Your task to perform on an android device: open app "Google Home" (install if not already installed) Image 0: 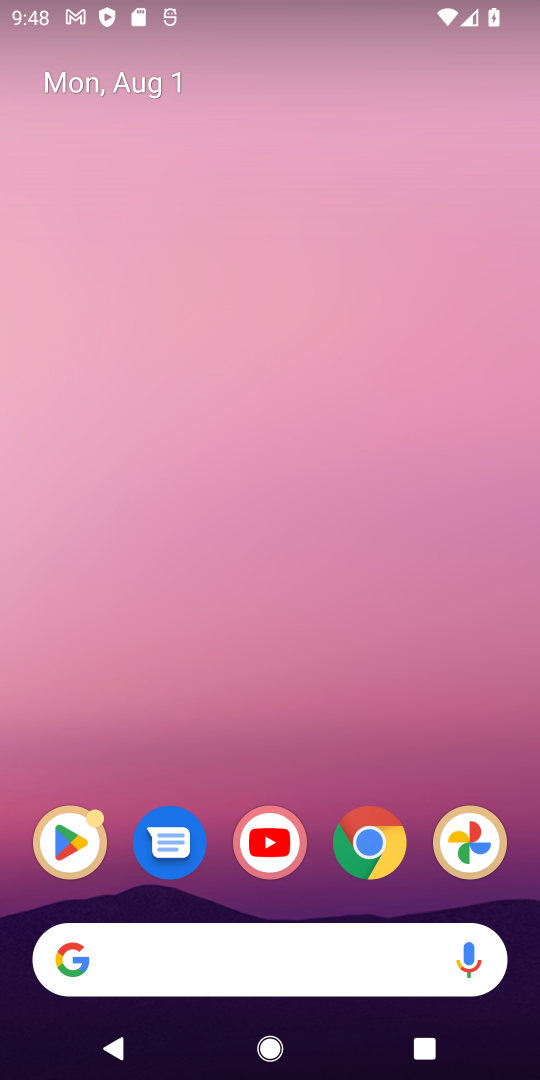
Step 0: click (84, 848)
Your task to perform on an android device: open app "Google Home" (install if not already installed) Image 1: 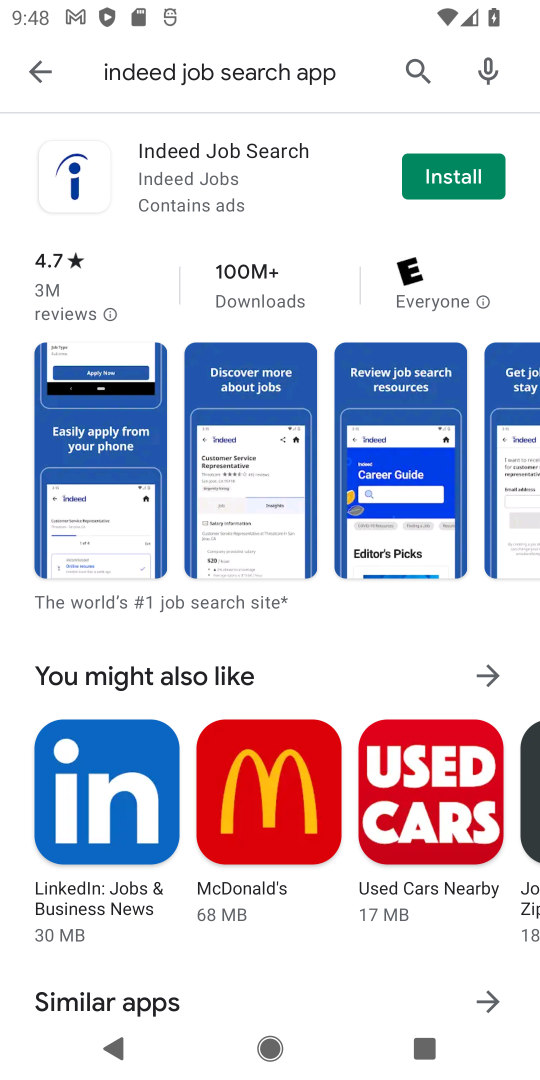
Step 1: click (406, 68)
Your task to perform on an android device: open app "Google Home" (install if not already installed) Image 2: 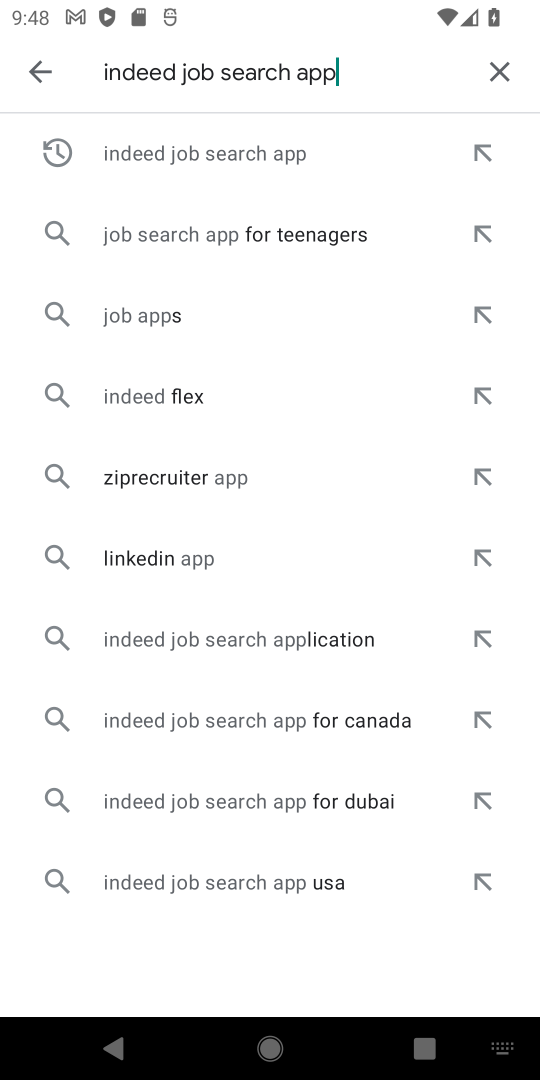
Step 2: click (486, 64)
Your task to perform on an android device: open app "Google Home" (install if not already installed) Image 3: 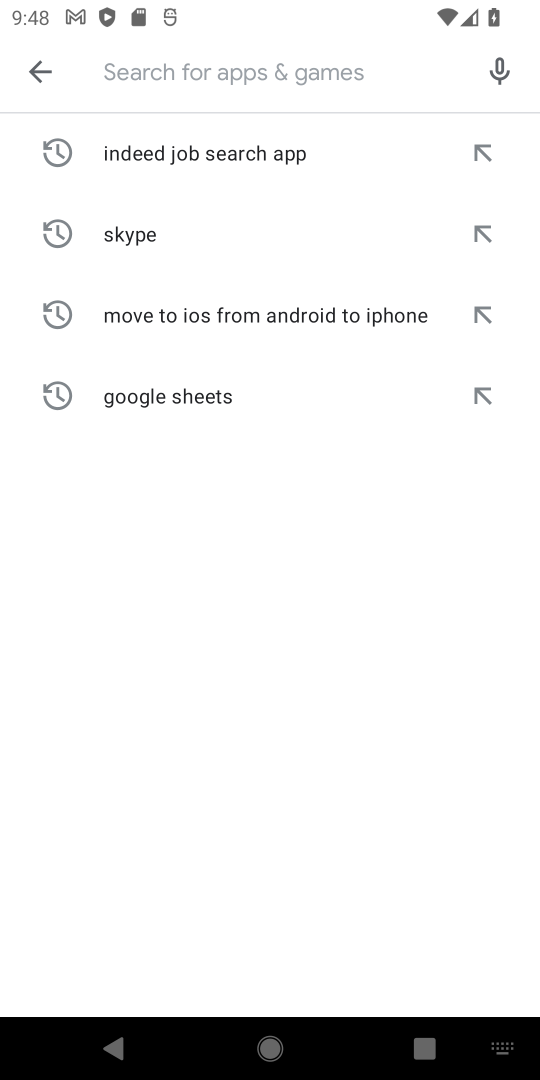
Step 3: click (237, 70)
Your task to perform on an android device: open app "Google Home" (install if not already installed) Image 4: 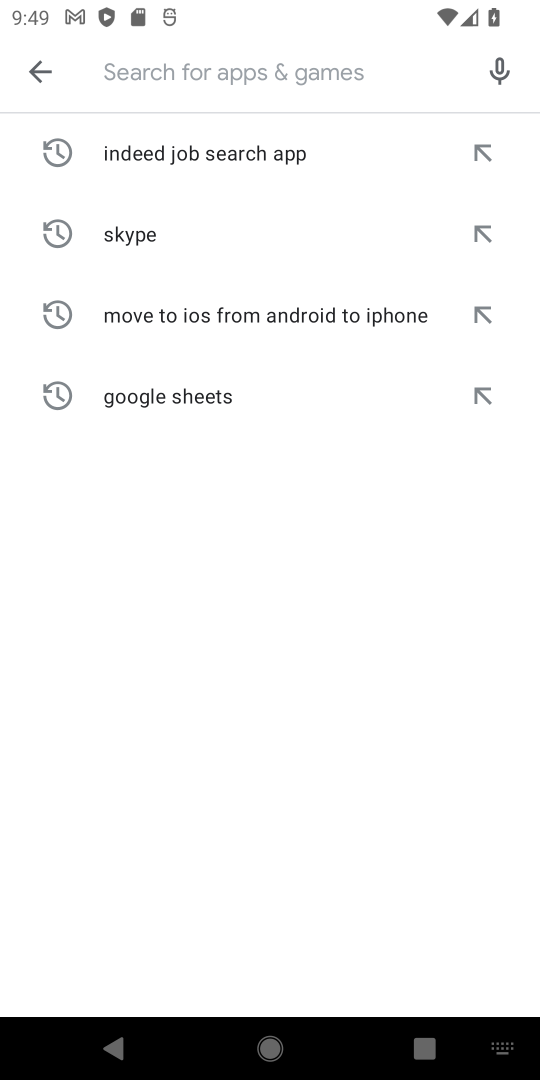
Step 4: type "google home"
Your task to perform on an android device: open app "Google Home" (install if not already installed) Image 5: 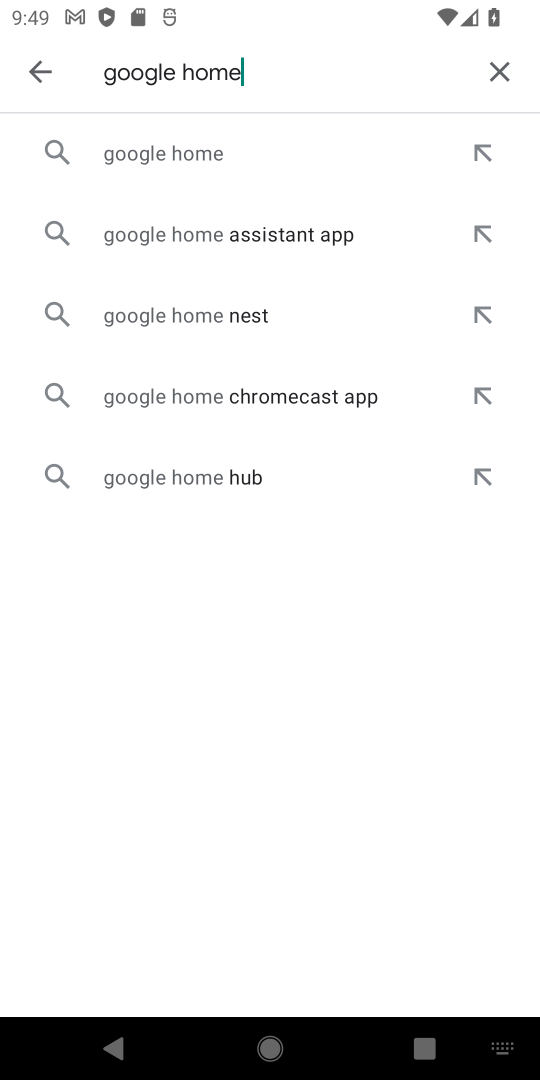
Step 5: click (165, 155)
Your task to perform on an android device: open app "Google Home" (install if not already installed) Image 6: 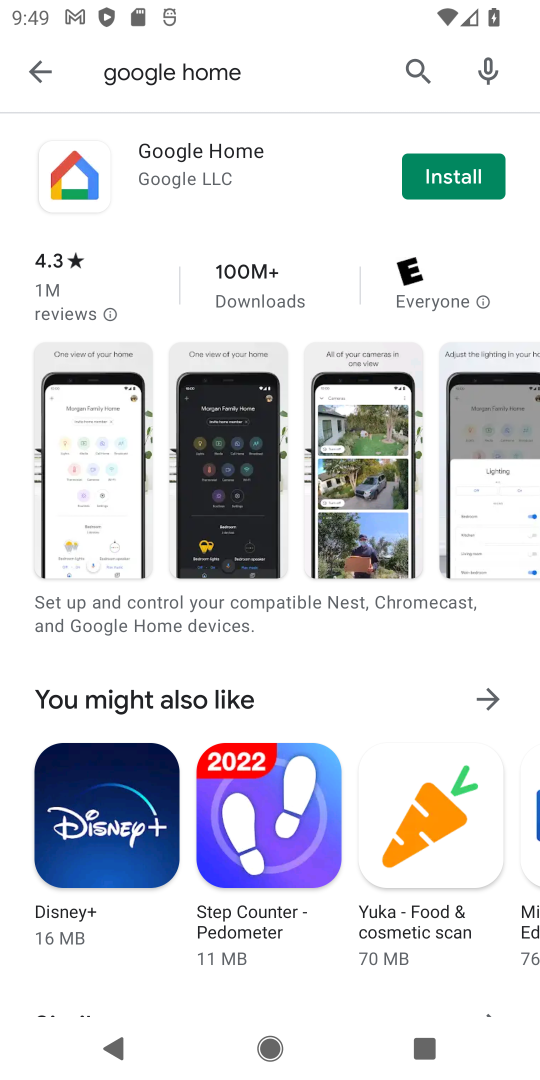
Step 6: click (484, 164)
Your task to perform on an android device: open app "Google Home" (install if not already installed) Image 7: 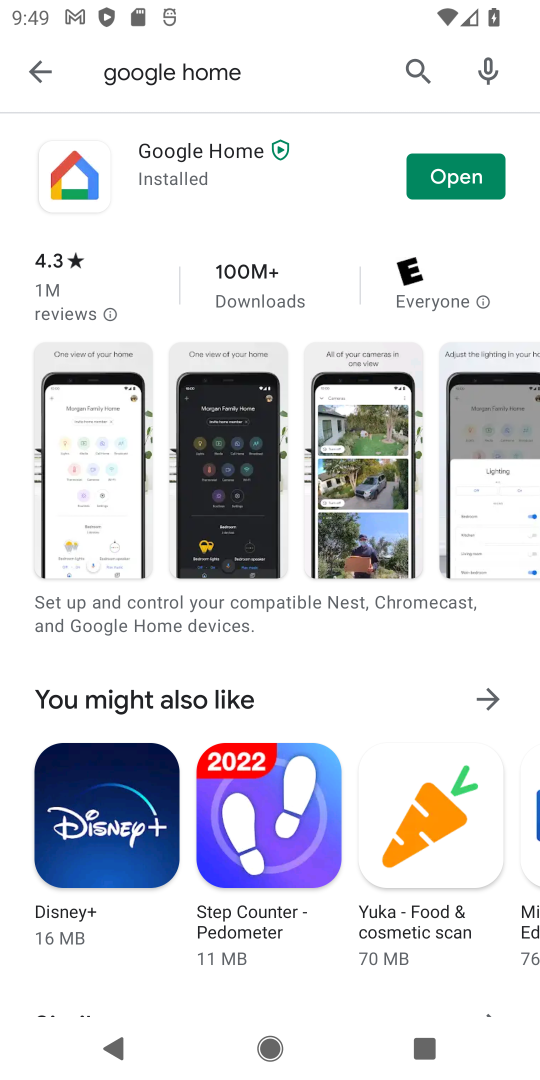
Step 7: click (444, 177)
Your task to perform on an android device: open app "Google Home" (install if not already installed) Image 8: 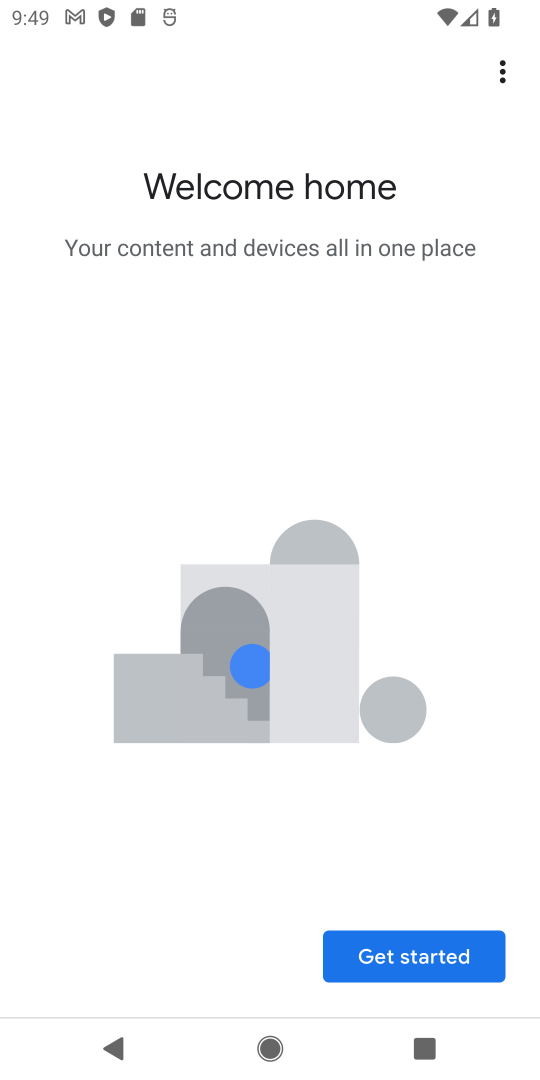
Step 8: task complete